Your task to perform on an android device: What's on my calendar tomorrow? Image 0: 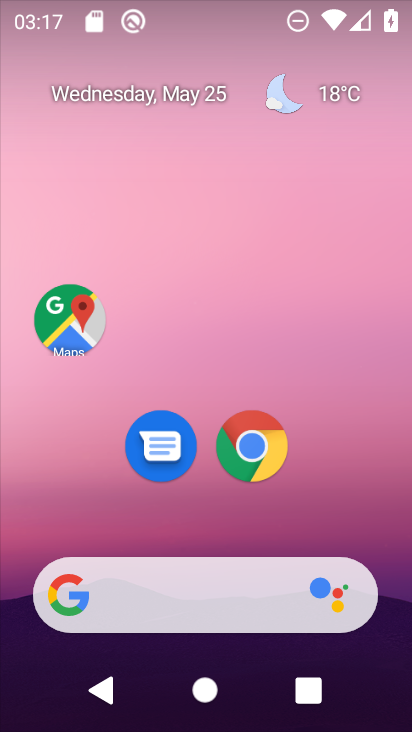
Step 0: drag from (196, 593) to (190, 33)
Your task to perform on an android device: What's on my calendar tomorrow? Image 1: 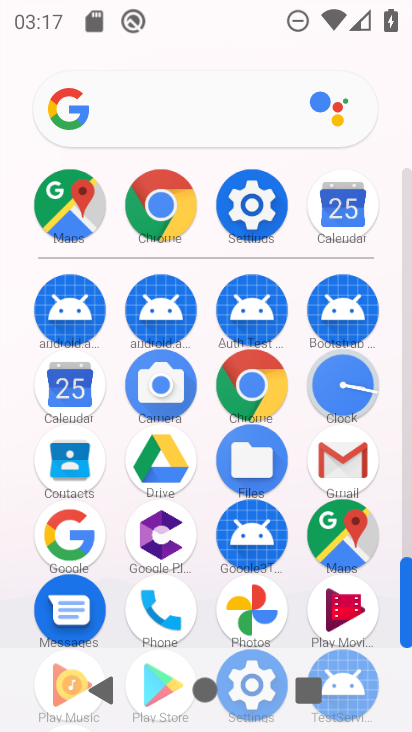
Step 1: click (60, 370)
Your task to perform on an android device: What's on my calendar tomorrow? Image 2: 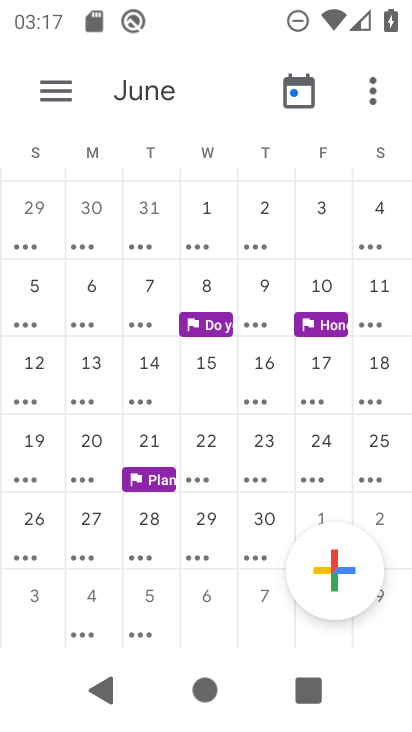
Step 2: click (58, 86)
Your task to perform on an android device: What's on my calendar tomorrow? Image 3: 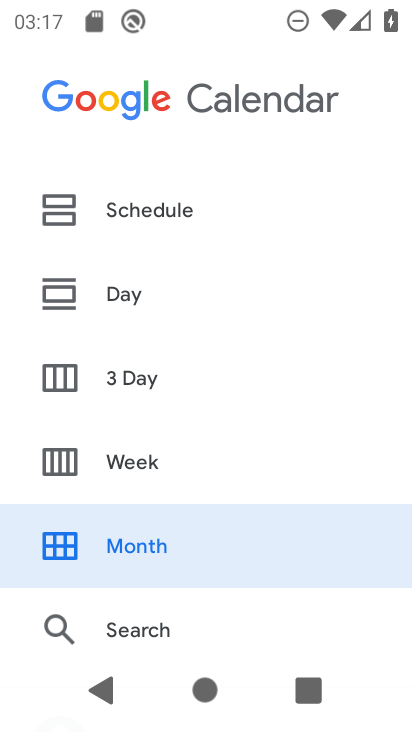
Step 3: click (132, 196)
Your task to perform on an android device: What's on my calendar tomorrow? Image 4: 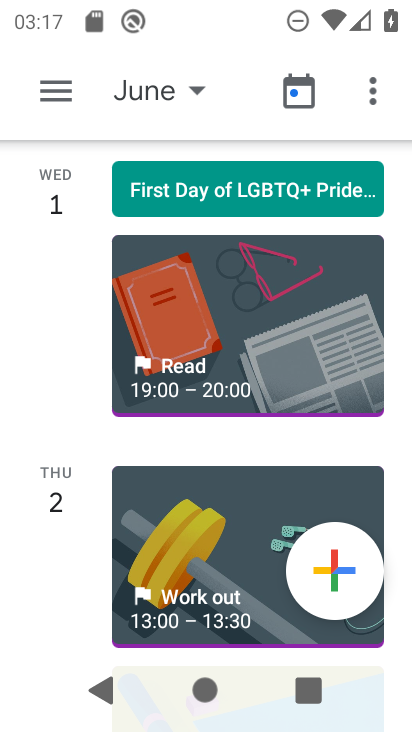
Step 4: click (190, 96)
Your task to perform on an android device: What's on my calendar tomorrow? Image 5: 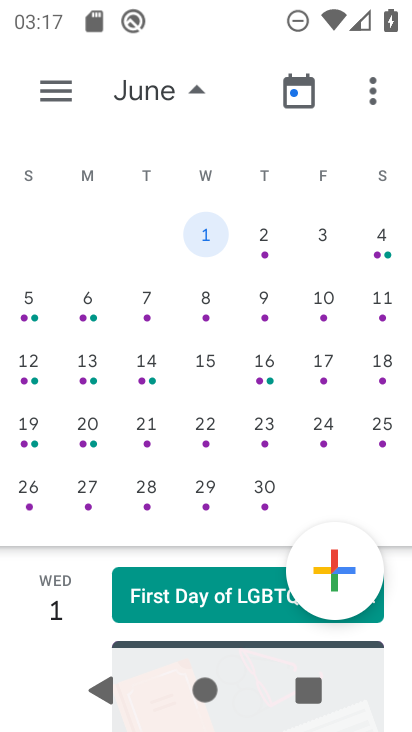
Step 5: drag from (94, 311) to (359, 270)
Your task to perform on an android device: What's on my calendar tomorrow? Image 6: 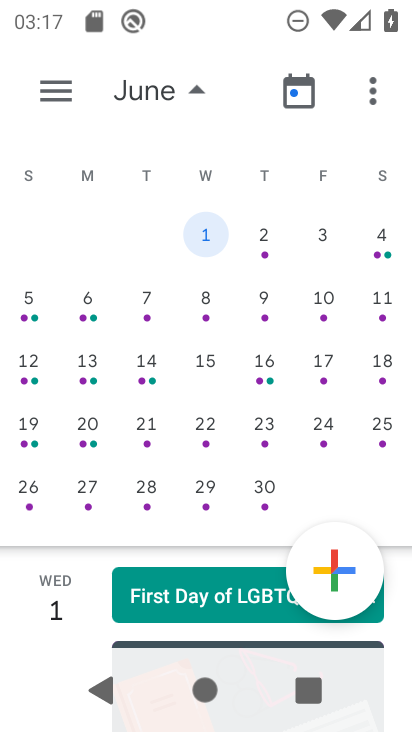
Step 6: drag from (102, 336) to (409, 326)
Your task to perform on an android device: What's on my calendar tomorrow? Image 7: 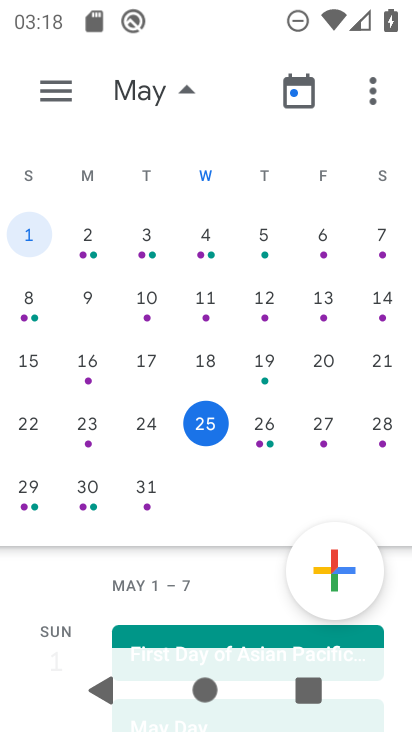
Step 7: click (262, 430)
Your task to perform on an android device: What's on my calendar tomorrow? Image 8: 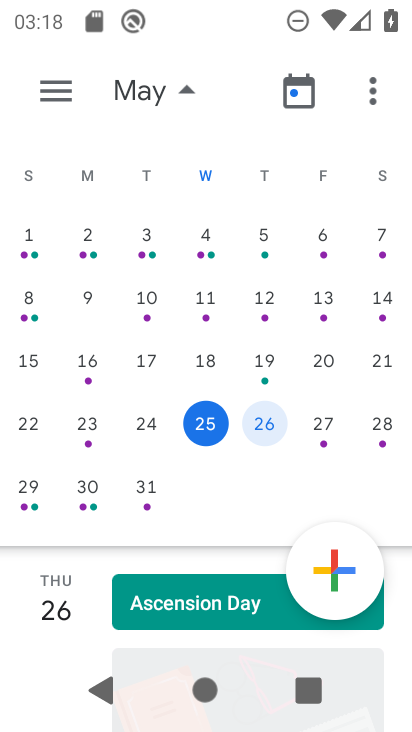
Step 8: click (176, 84)
Your task to perform on an android device: What's on my calendar tomorrow? Image 9: 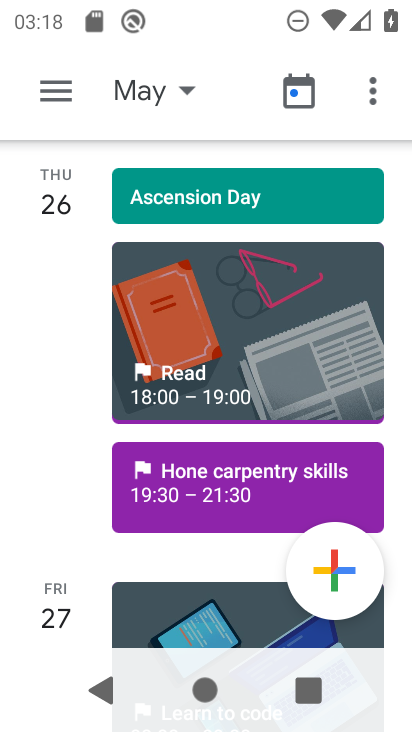
Step 9: task complete